Your task to perform on an android device: Open Google Chrome Image 0: 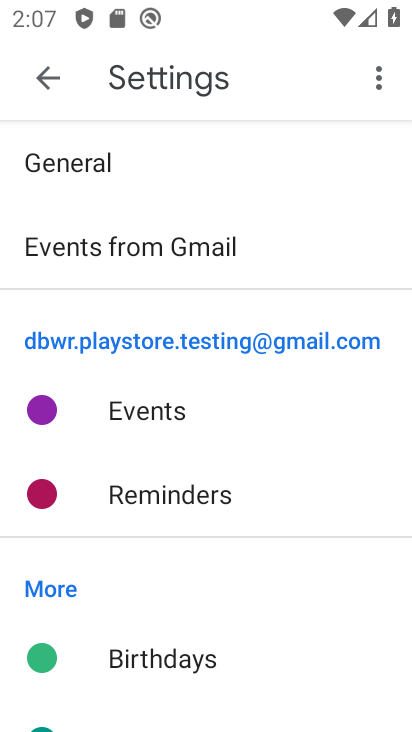
Step 0: press home button
Your task to perform on an android device: Open Google Chrome Image 1: 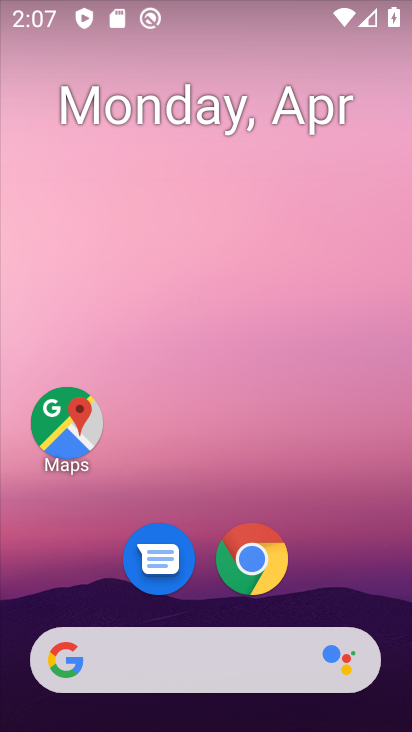
Step 1: click (253, 544)
Your task to perform on an android device: Open Google Chrome Image 2: 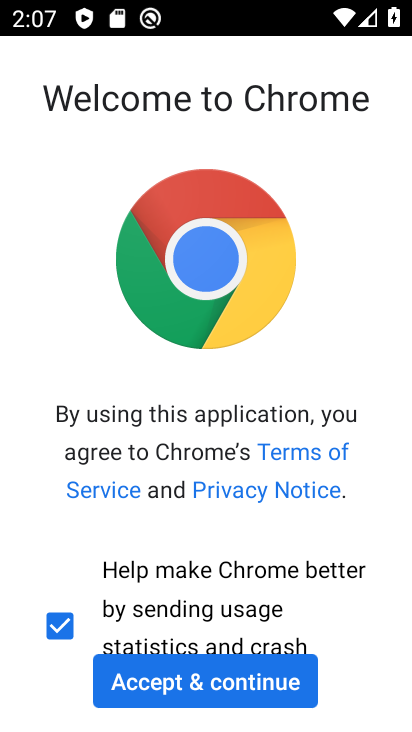
Step 2: click (193, 688)
Your task to perform on an android device: Open Google Chrome Image 3: 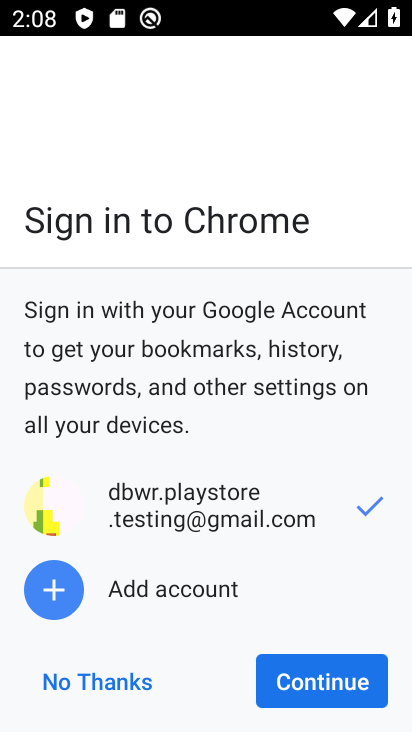
Step 3: click (293, 690)
Your task to perform on an android device: Open Google Chrome Image 4: 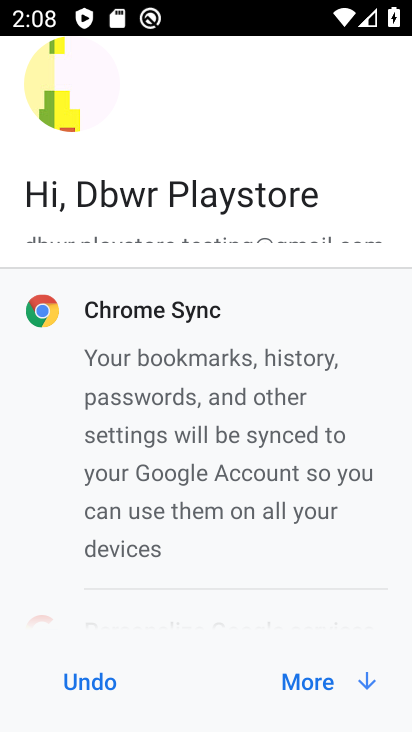
Step 4: click (293, 690)
Your task to perform on an android device: Open Google Chrome Image 5: 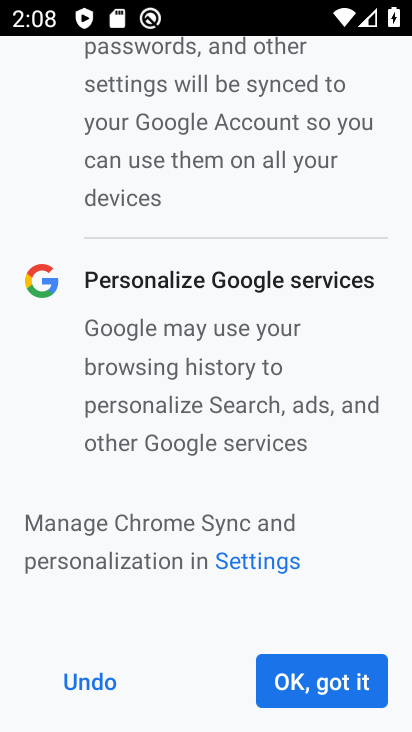
Step 5: click (294, 691)
Your task to perform on an android device: Open Google Chrome Image 6: 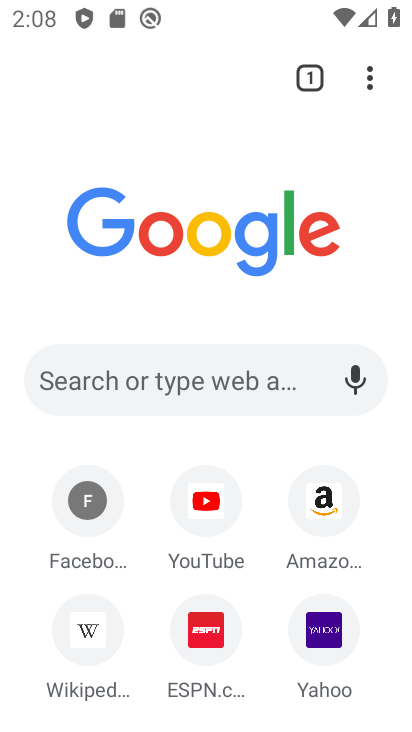
Step 6: task complete